Your task to perform on an android device: see tabs open on other devices in the chrome app Image 0: 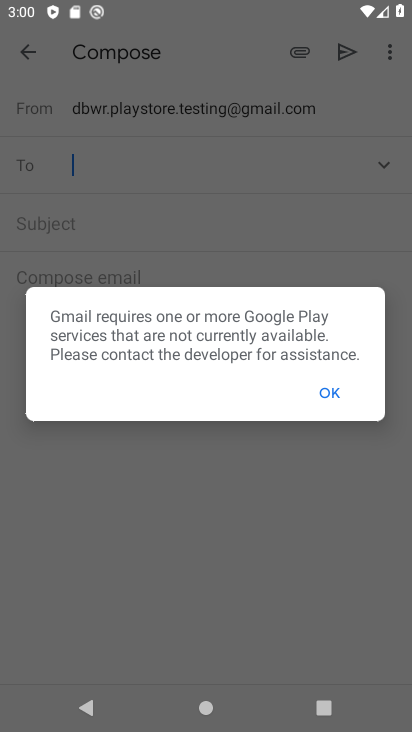
Step 0: press home button
Your task to perform on an android device: see tabs open on other devices in the chrome app Image 1: 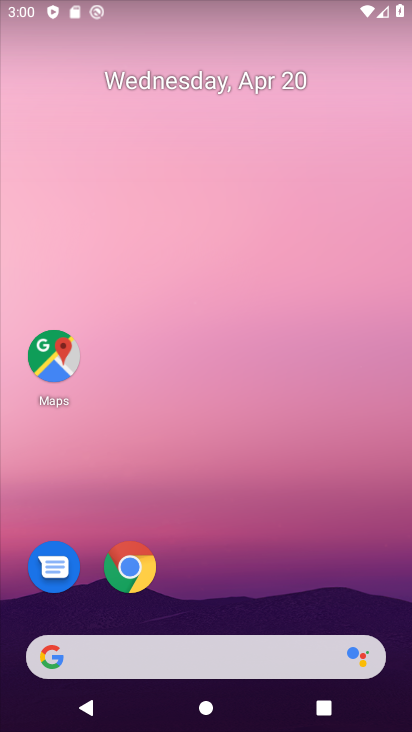
Step 1: click (124, 566)
Your task to perform on an android device: see tabs open on other devices in the chrome app Image 2: 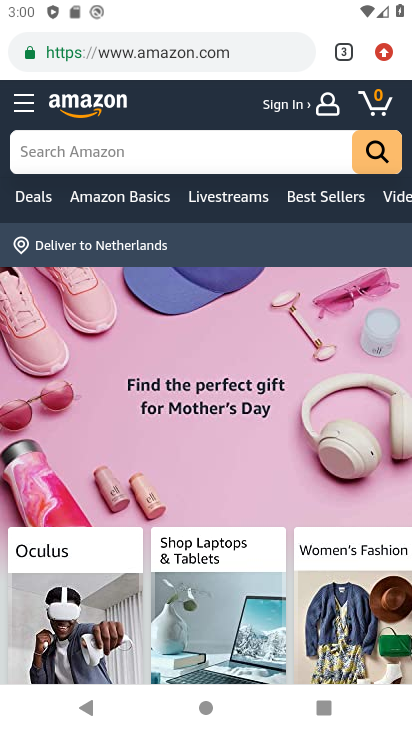
Step 2: click (386, 57)
Your task to perform on an android device: see tabs open on other devices in the chrome app Image 3: 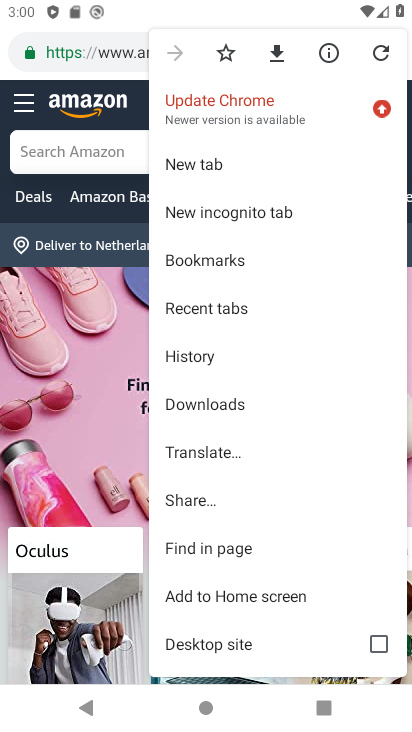
Step 3: click (229, 305)
Your task to perform on an android device: see tabs open on other devices in the chrome app Image 4: 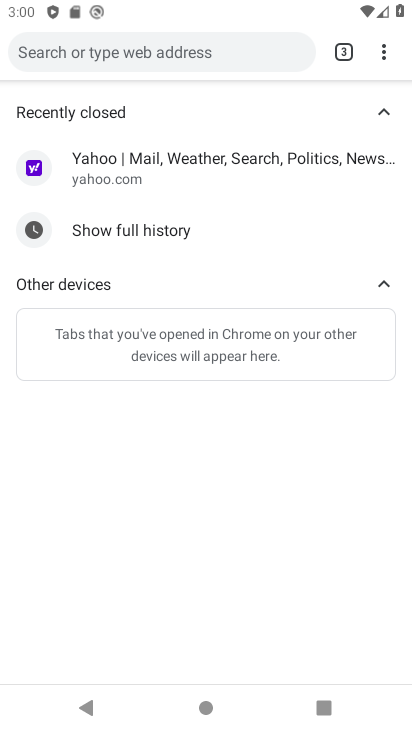
Step 4: task complete